Your task to perform on an android device: Open sound settings Image 0: 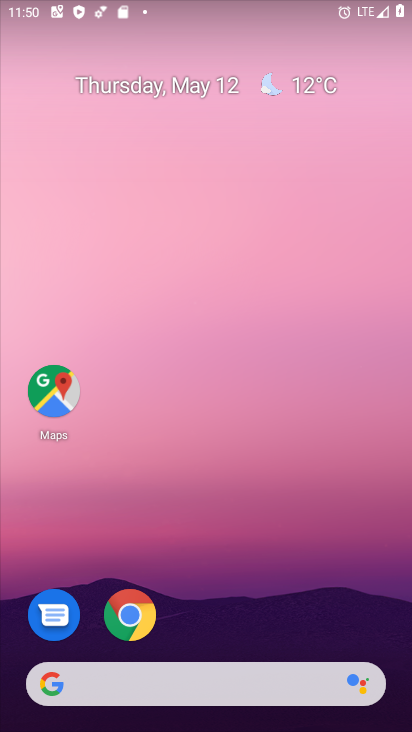
Step 0: drag from (206, 536) to (200, 36)
Your task to perform on an android device: Open sound settings Image 1: 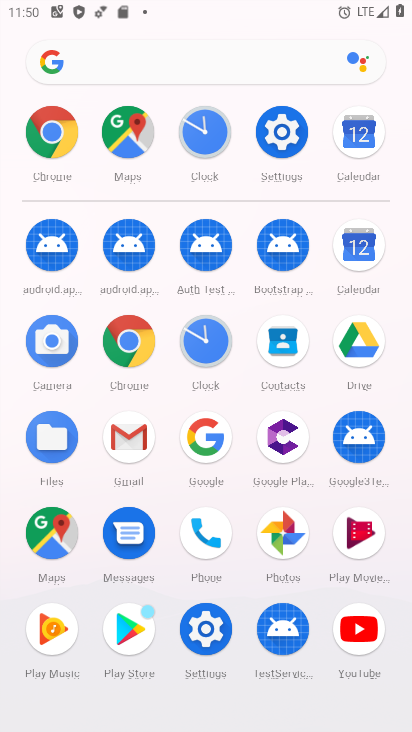
Step 1: click (270, 123)
Your task to perform on an android device: Open sound settings Image 2: 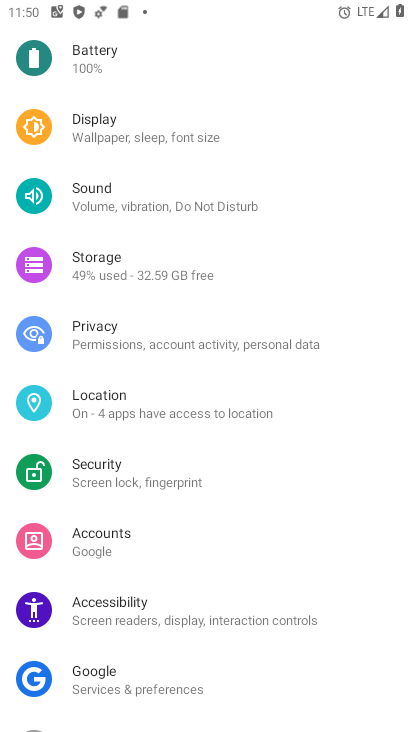
Step 2: drag from (226, 122) to (231, 569)
Your task to perform on an android device: Open sound settings Image 3: 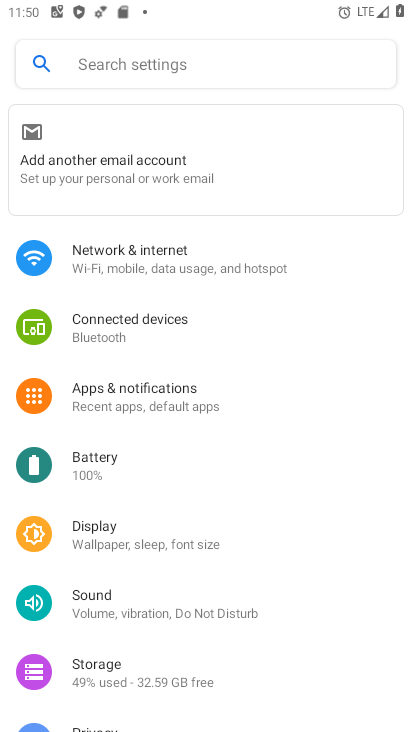
Step 3: click (211, 599)
Your task to perform on an android device: Open sound settings Image 4: 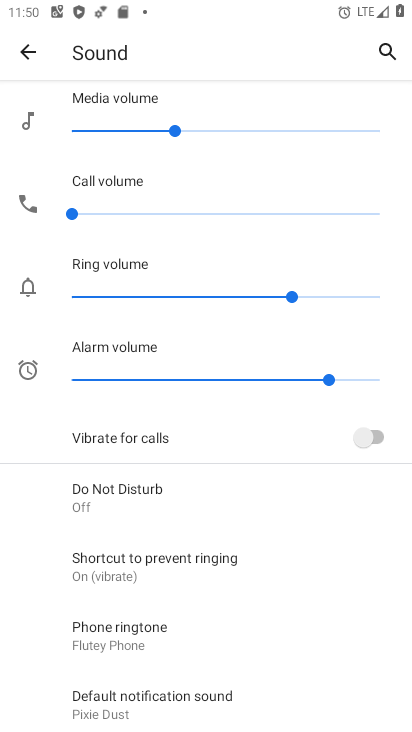
Step 4: task complete